Your task to perform on an android device: Open Yahoo.com Image 0: 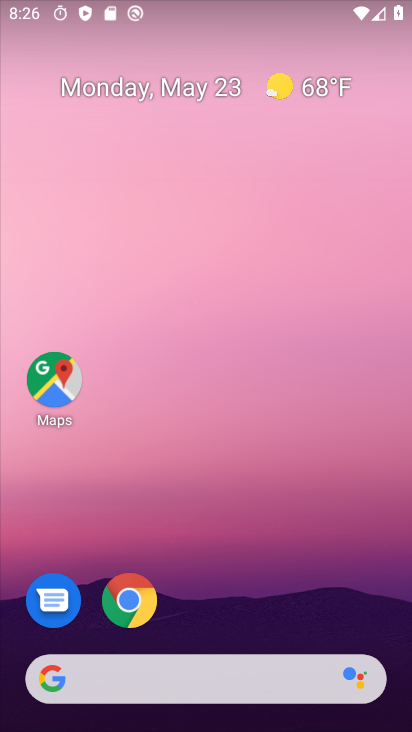
Step 0: click (125, 615)
Your task to perform on an android device: Open Yahoo.com Image 1: 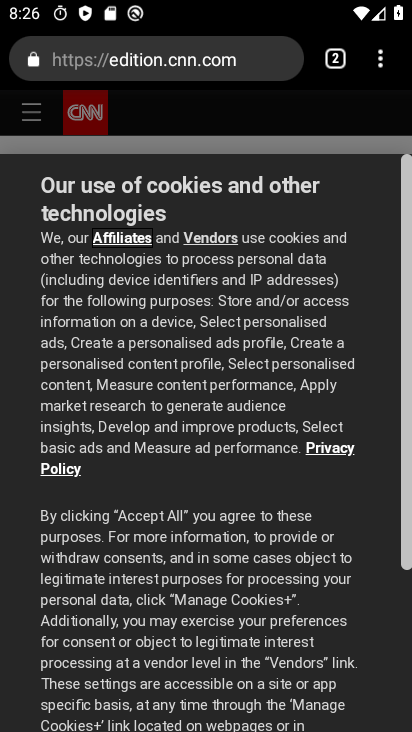
Step 1: click (322, 59)
Your task to perform on an android device: Open Yahoo.com Image 2: 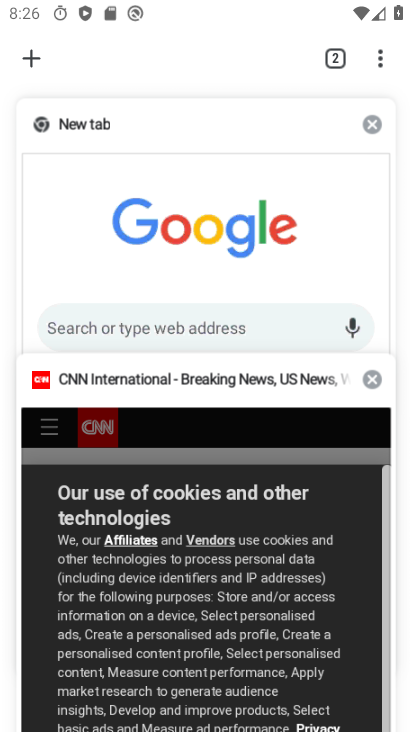
Step 2: click (376, 384)
Your task to perform on an android device: Open Yahoo.com Image 3: 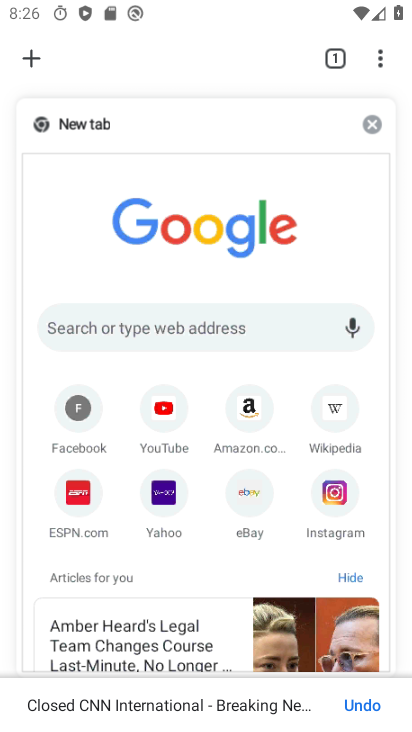
Step 3: click (326, 220)
Your task to perform on an android device: Open Yahoo.com Image 4: 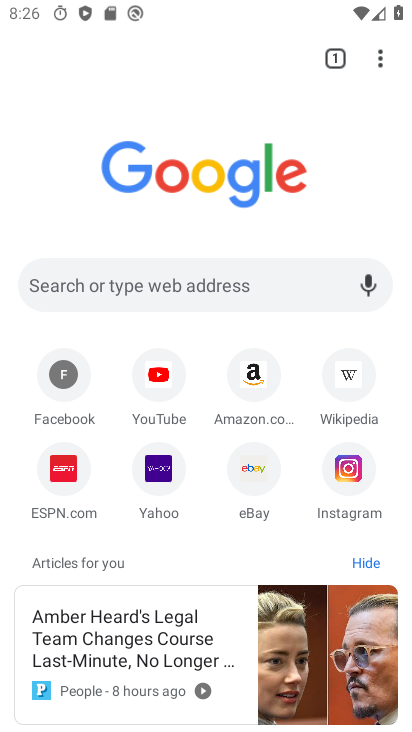
Step 4: click (171, 465)
Your task to perform on an android device: Open Yahoo.com Image 5: 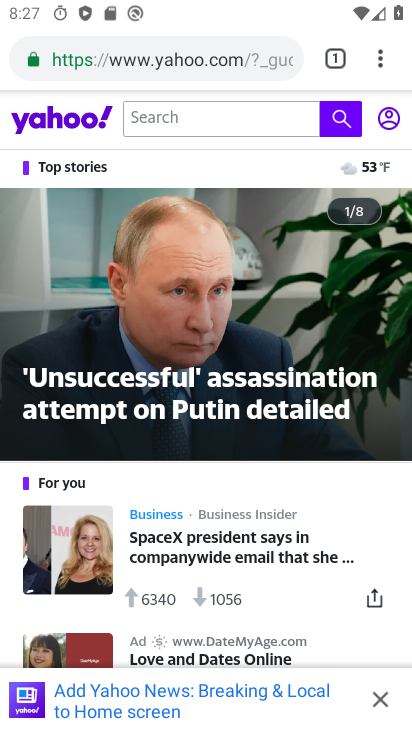
Step 5: task complete